Your task to perform on an android device: empty trash in the gmail app Image 0: 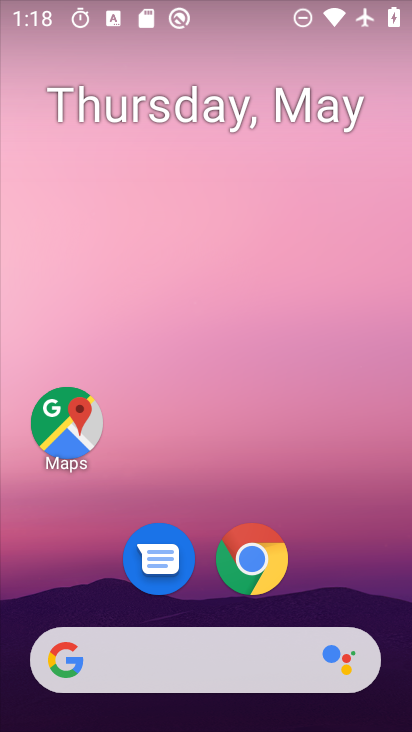
Step 0: click (365, 233)
Your task to perform on an android device: empty trash in the gmail app Image 1: 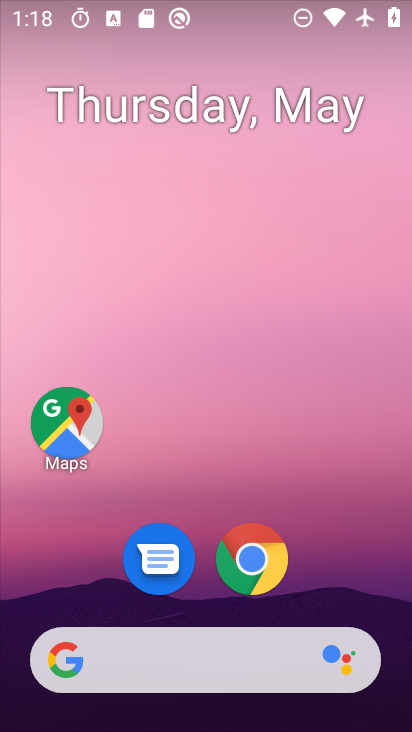
Step 1: drag from (316, 480) to (325, 216)
Your task to perform on an android device: empty trash in the gmail app Image 2: 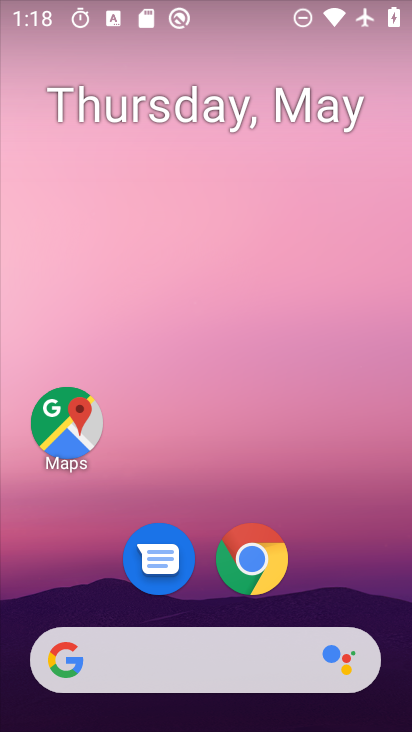
Step 2: drag from (324, 473) to (347, 38)
Your task to perform on an android device: empty trash in the gmail app Image 3: 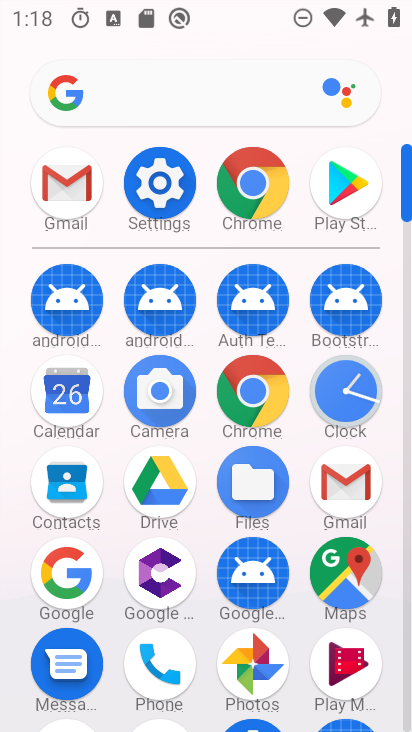
Step 3: click (334, 498)
Your task to perform on an android device: empty trash in the gmail app Image 4: 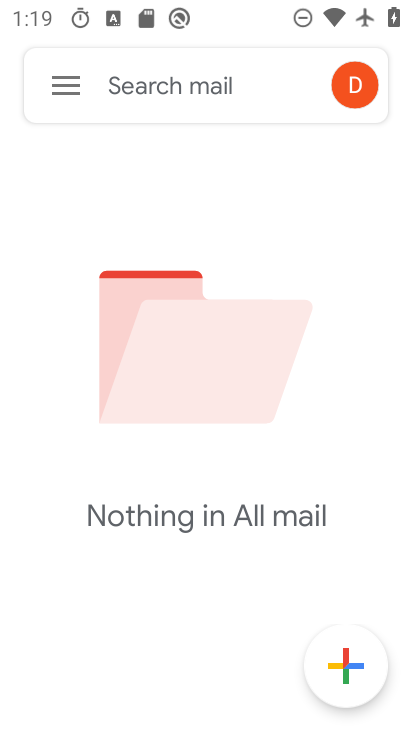
Step 4: click (74, 90)
Your task to perform on an android device: empty trash in the gmail app Image 5: 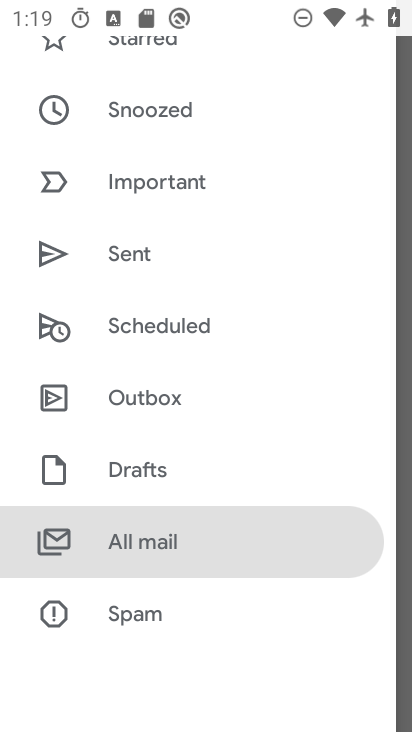
Step 5: drag from (237, 392) to (282, 163)
Your task to perform on an android device: empty trash in the gmail app Image 6: 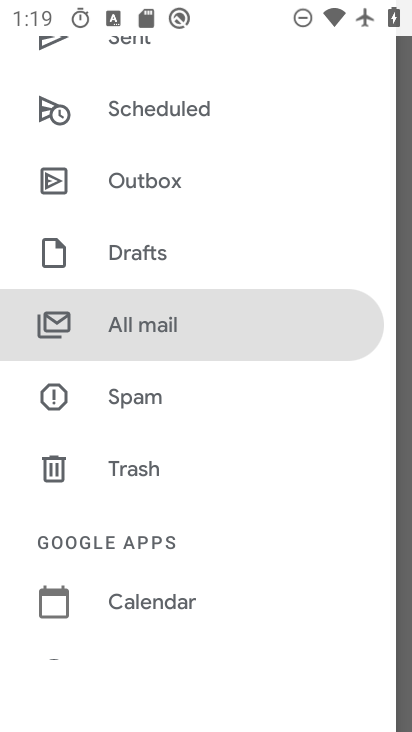
Step 6: click (144, 462)
Your task to perform on an android device: empty trash in the gmail app Image 7: 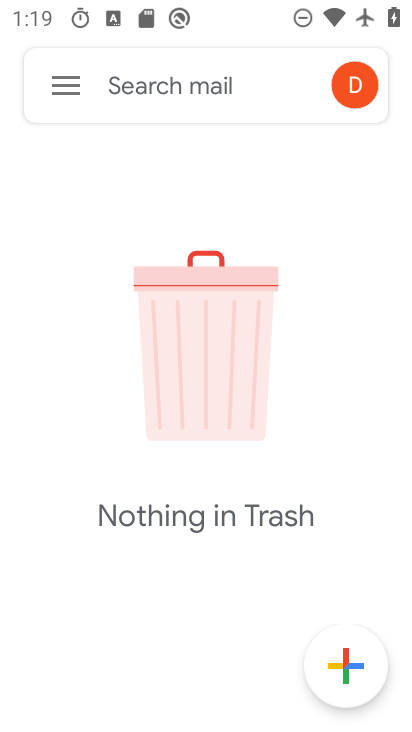
Step 7: task complete